Your task to perform on an android device: uninstall "Grab" Image 0: 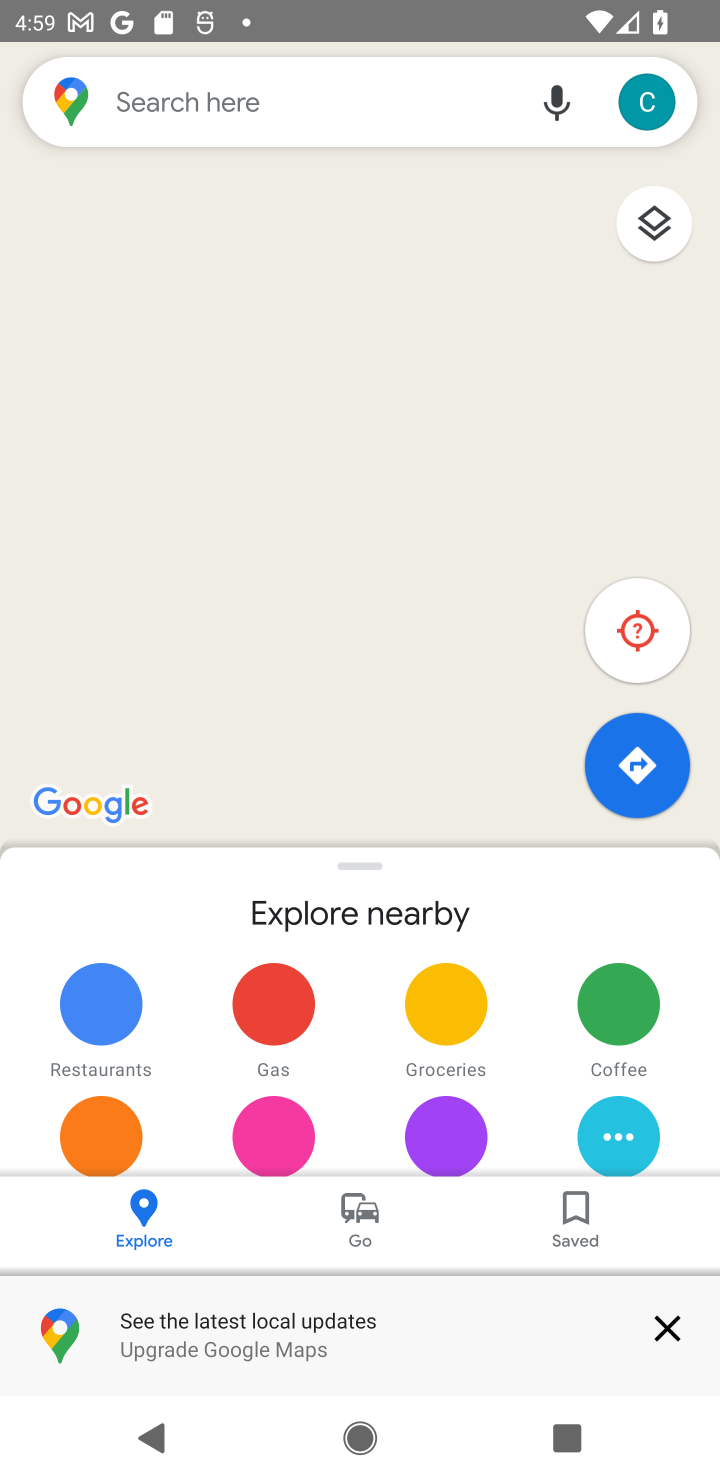
Step 0: press home button
Your task to perform on an android device: uninstall "Grab" Image 1: 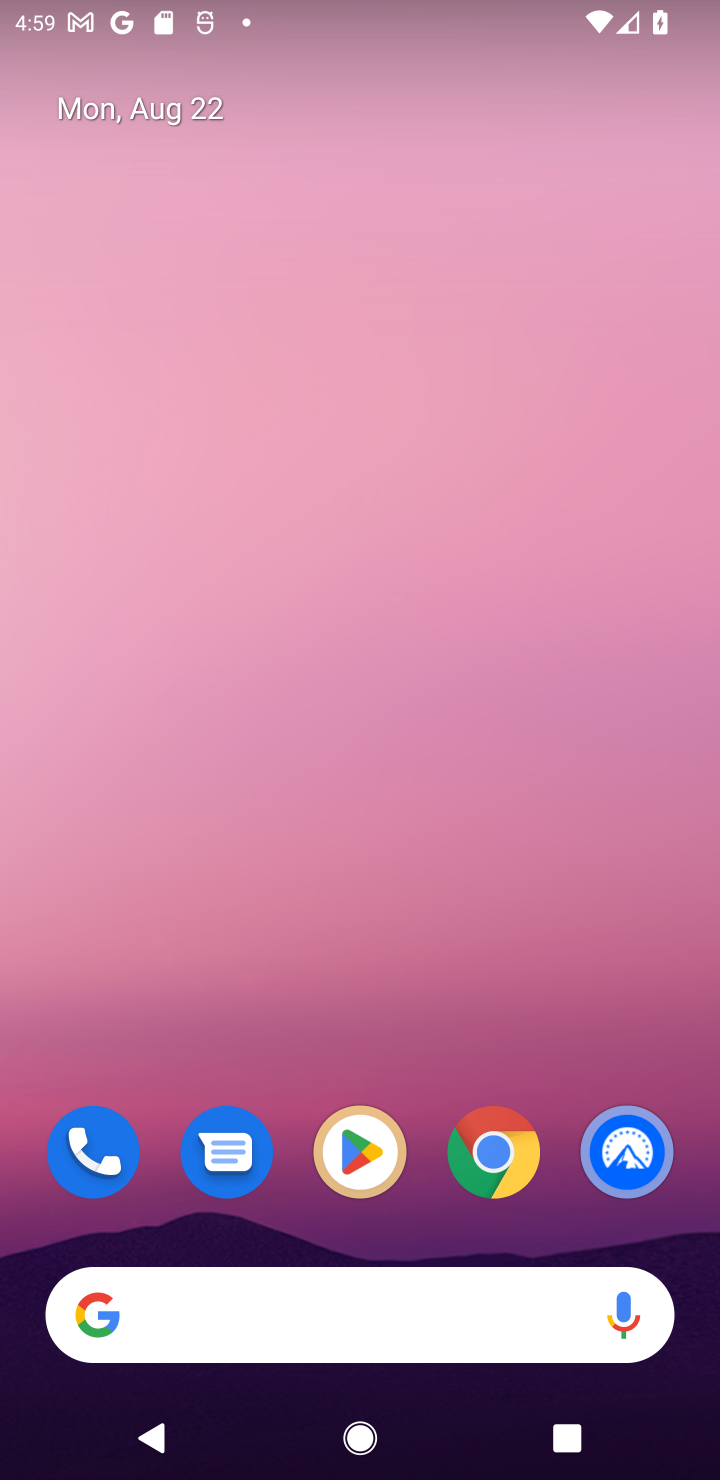
Step 1: click (357, 1182)
Your task to perform on an android device: uninstall "Grab" Image 2: 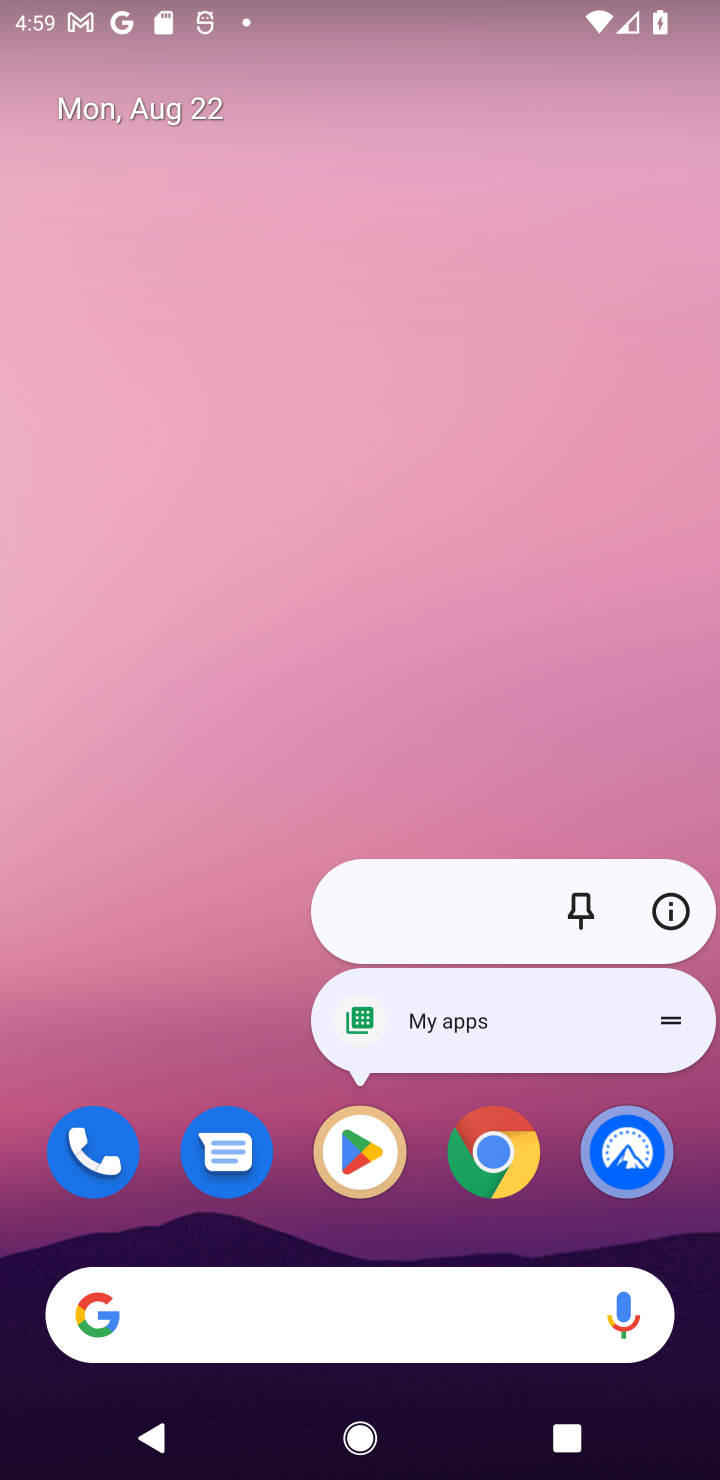
Step 2: click (362, 1153)
Your task to perform on an android device: uninstall "Grab" Image 3: 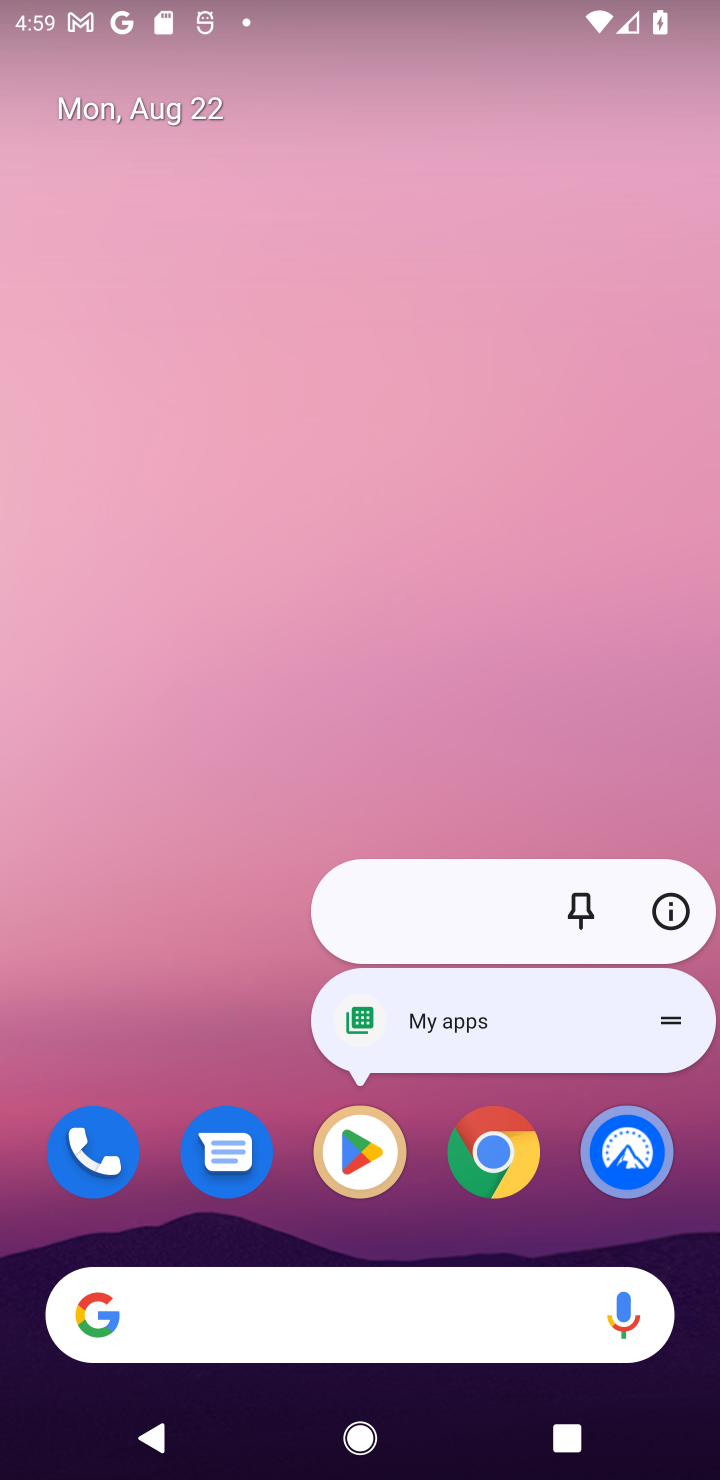
Step 3: click (362, 1153)
Your task to perform on an android device: uninstall "Grab" Image 4: 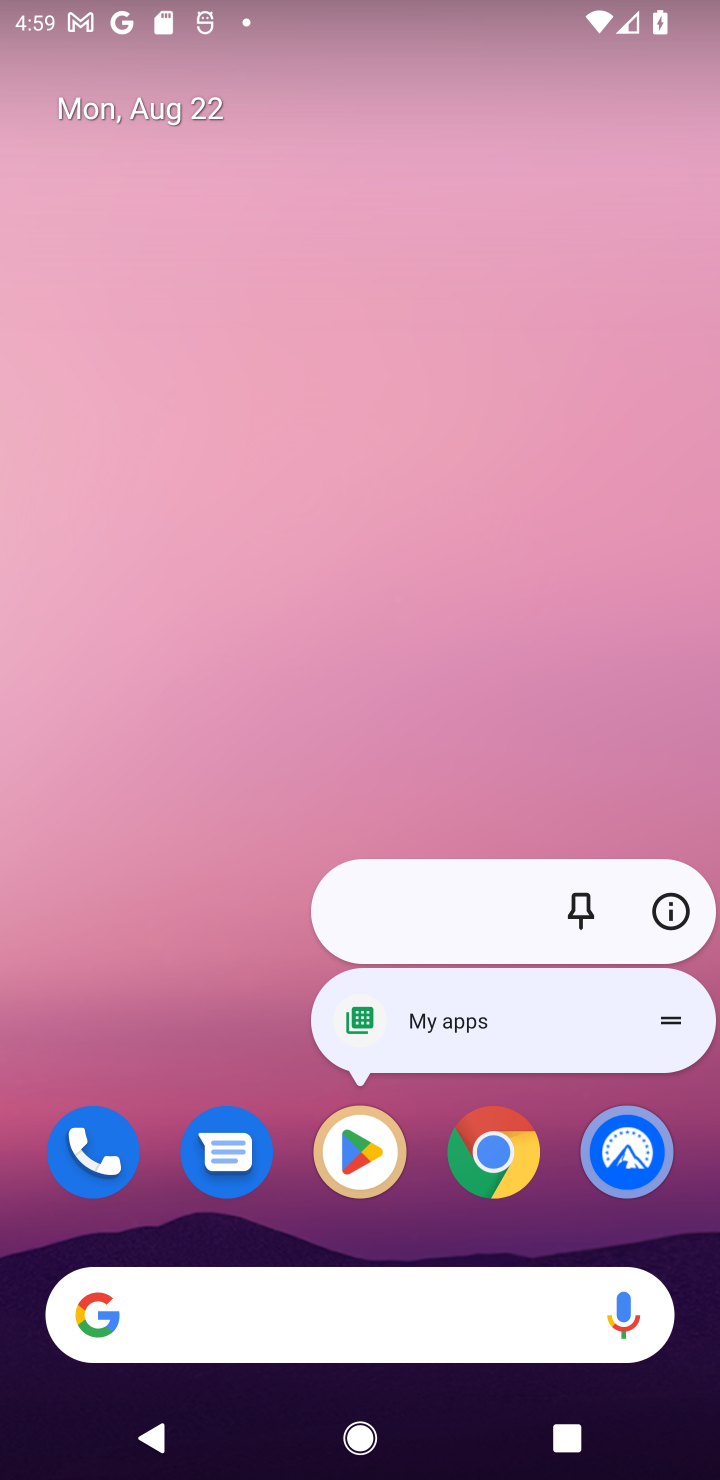
Step 4: click (362, 1153)
Your task to perform on an android device: uninstall "Grab" Image 5: 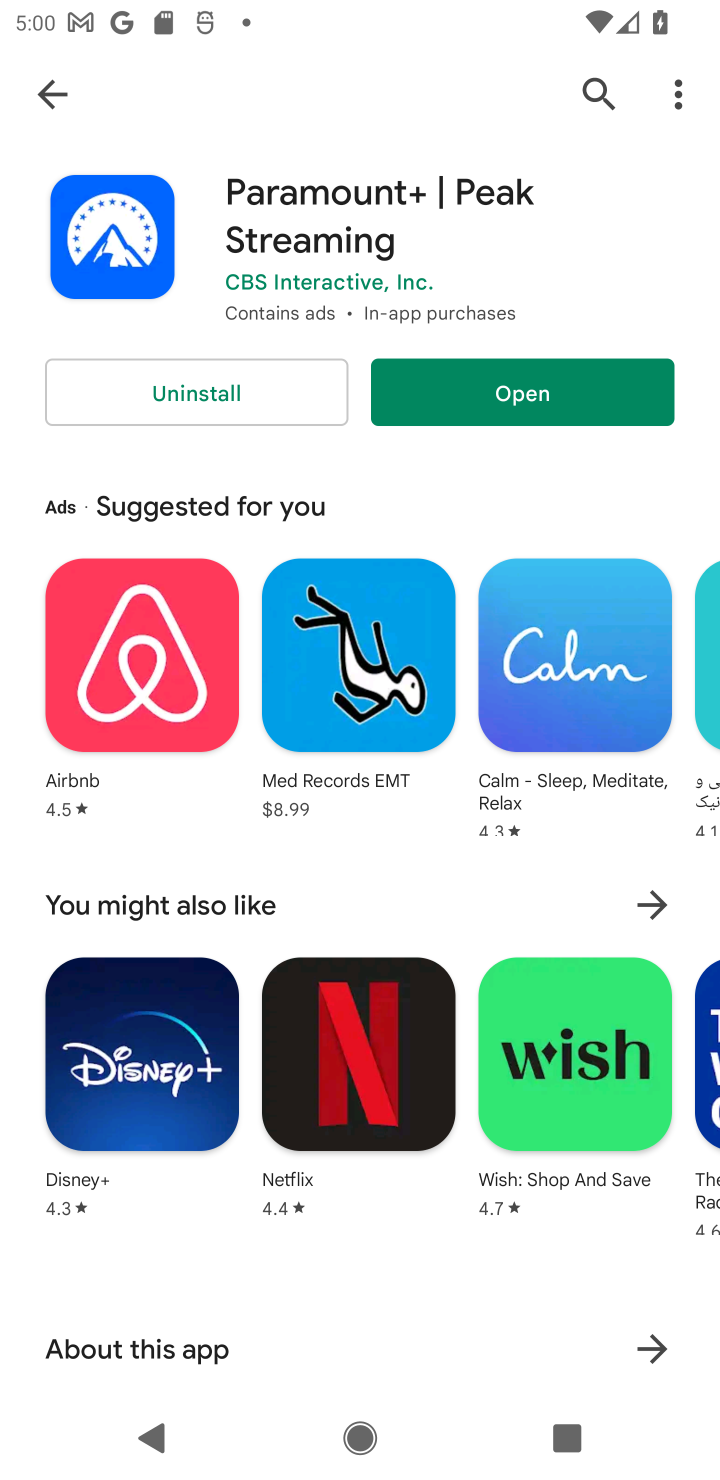
Step 5: click (30, 85)
Your task to perform on an android device: uninstall "Grab" Image 6: 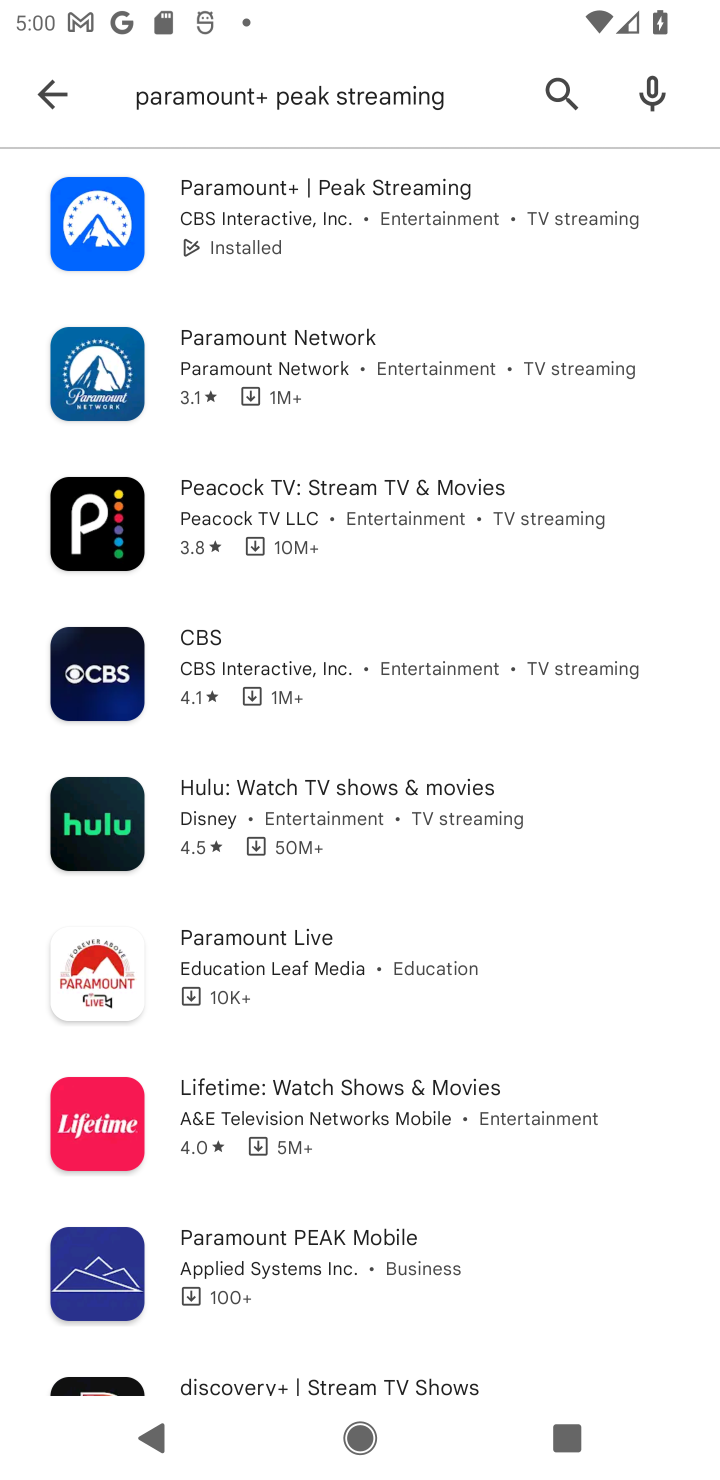
Step 6: click (26, 112)
Your task to perform on an android device: uninstall "Grab" Image 7: 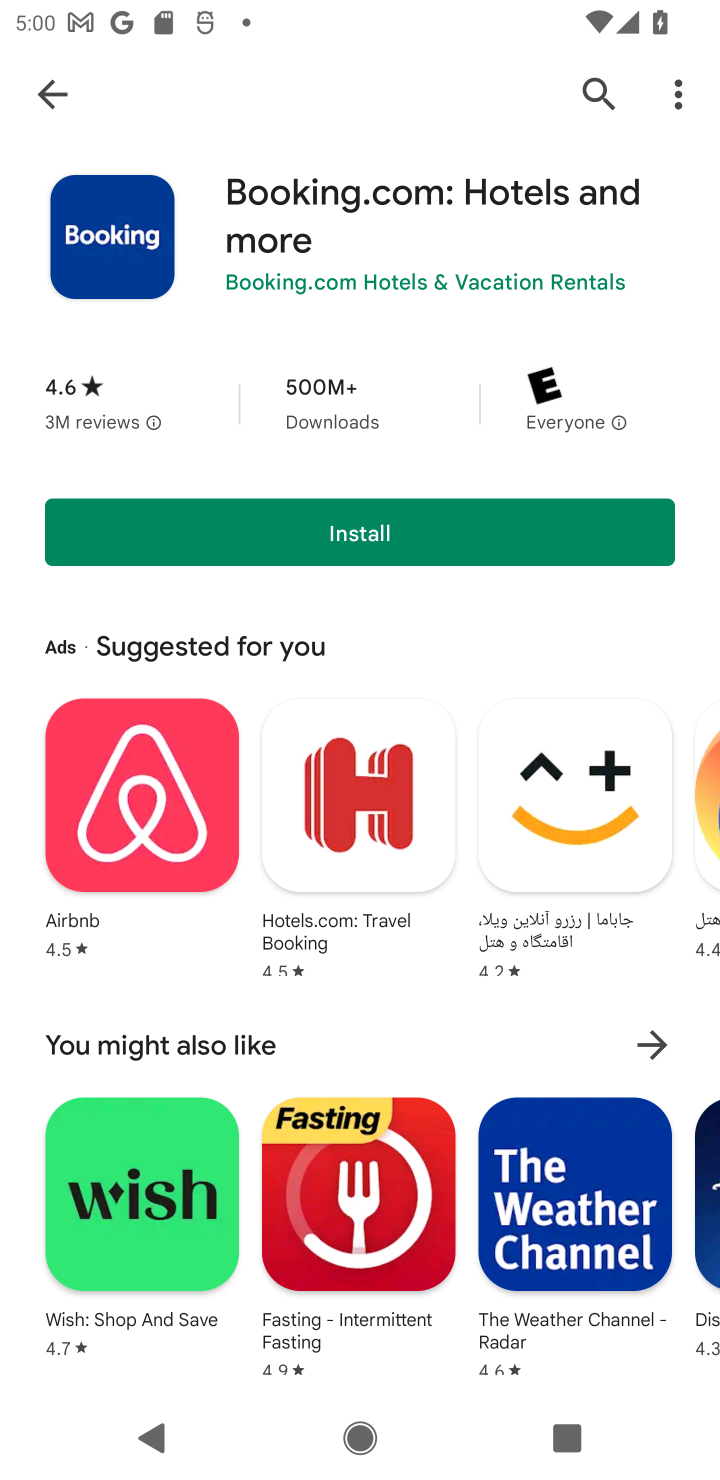
Step 7: click (27, 74)
Your task to perform on an android device: uninstall "Grab" Image 8: 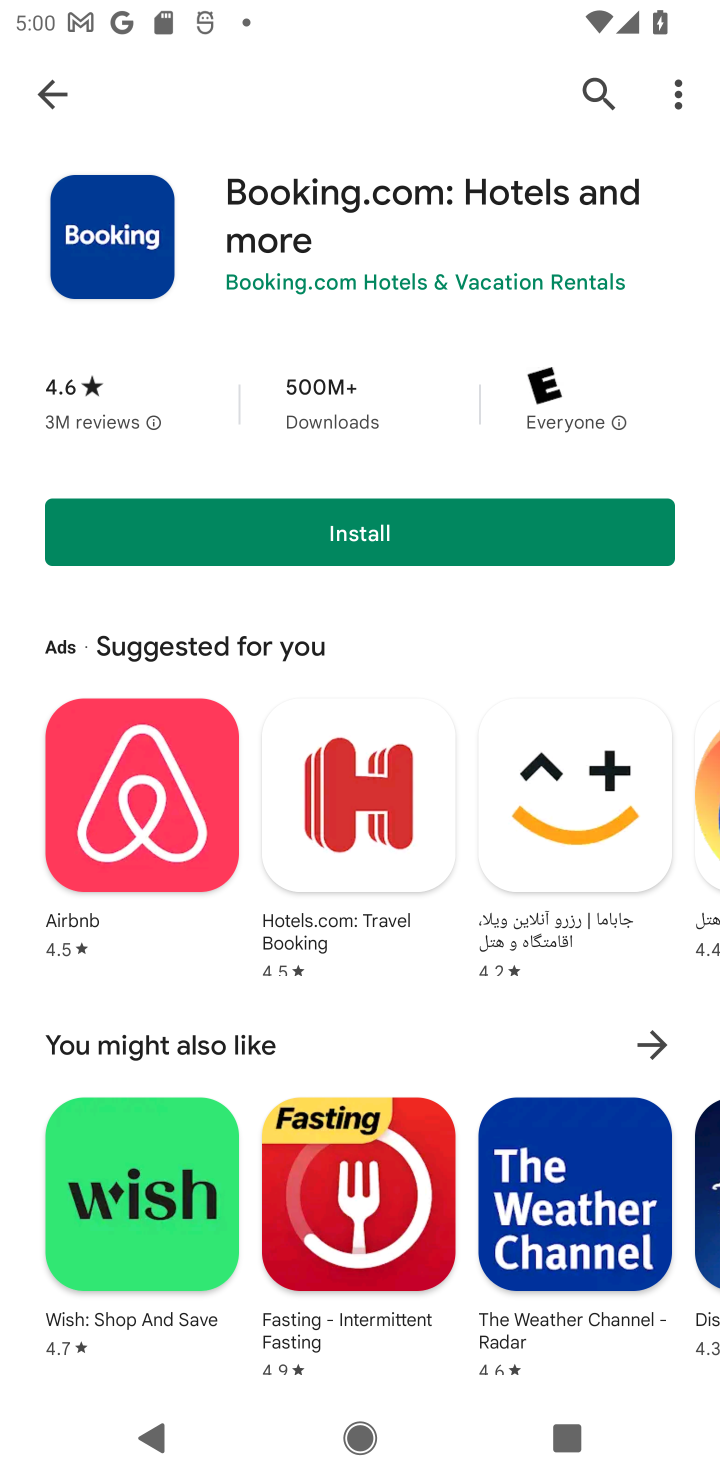
Step 8: click (586, 87)
Your task to perform on an android device: uninstall "Grab" Image 9: 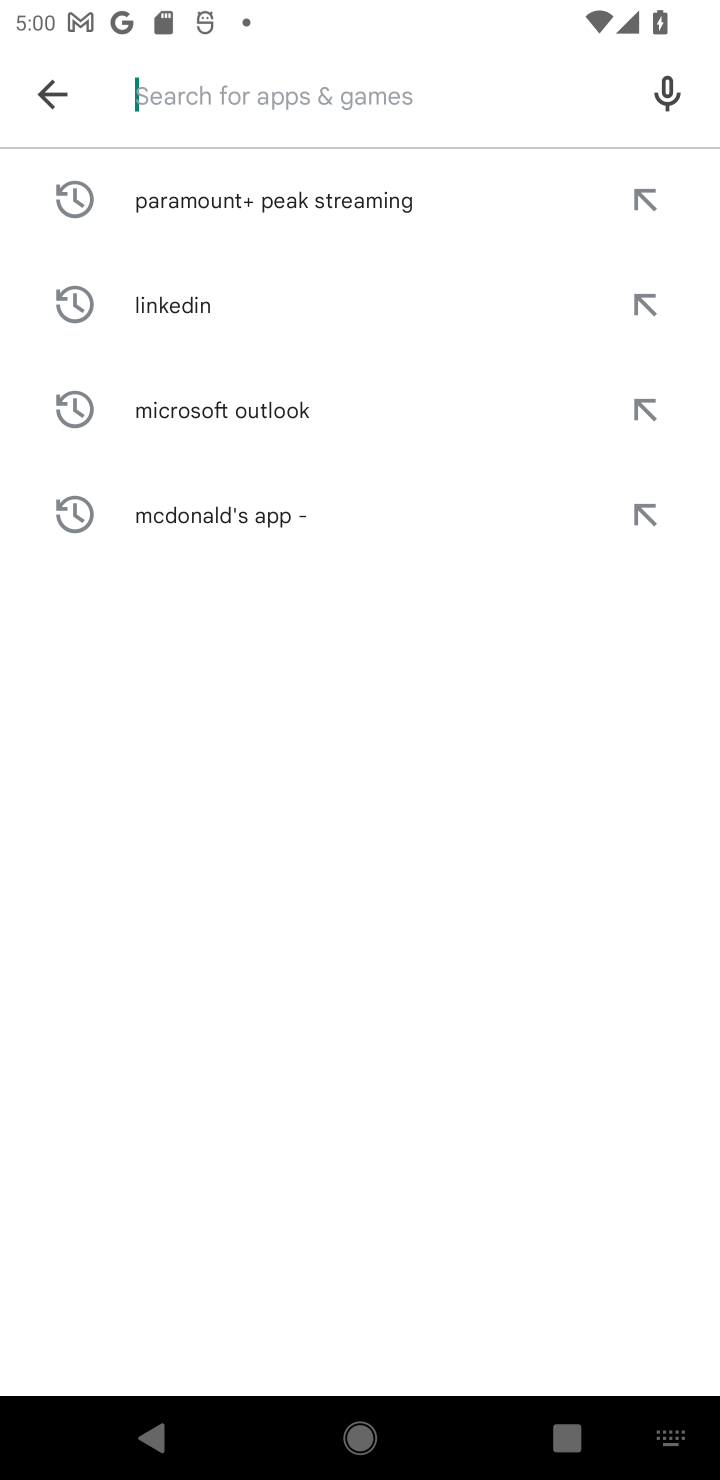
Step 9: type "Grab"
Your task to perform on an android device: uninstall "Grab" Image 10: 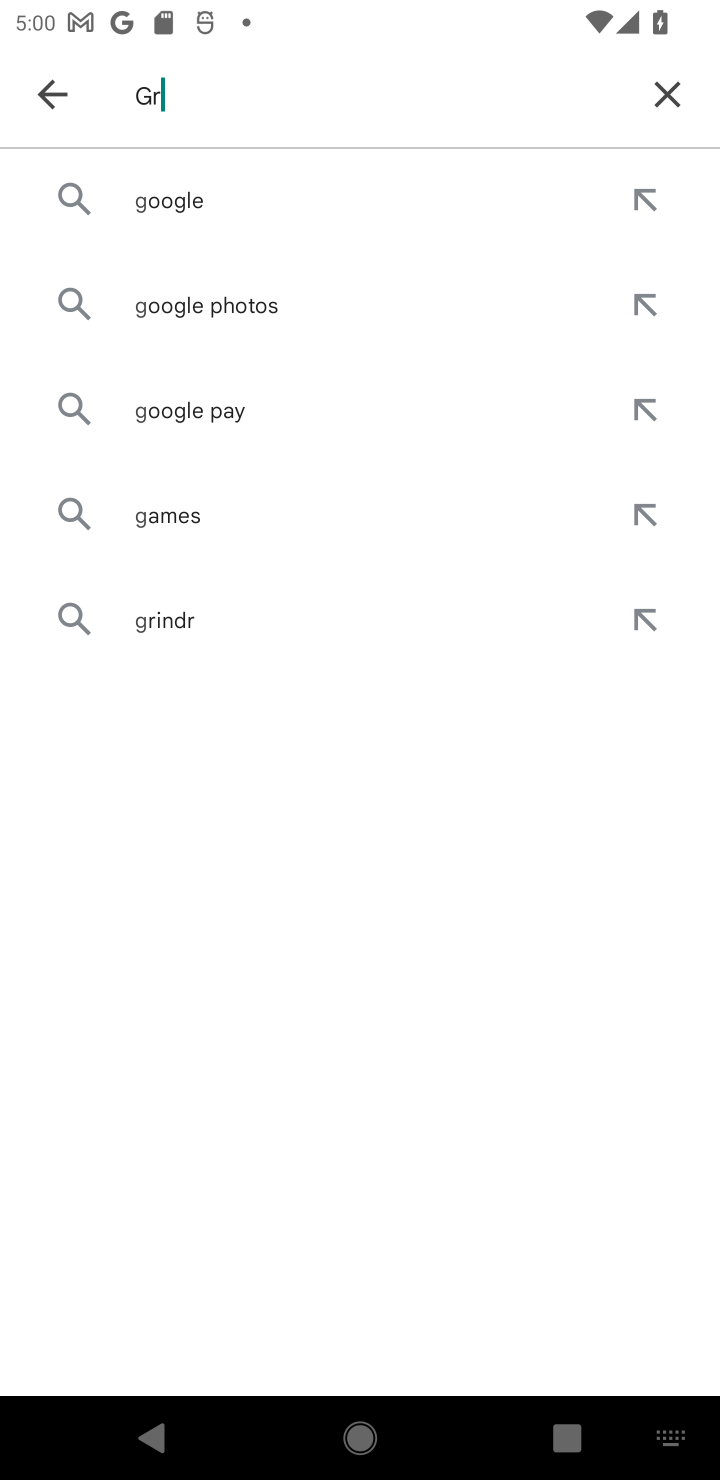
Step 10: type ""
Your task to perform on an android device: uninstall "Grab" Image 11: 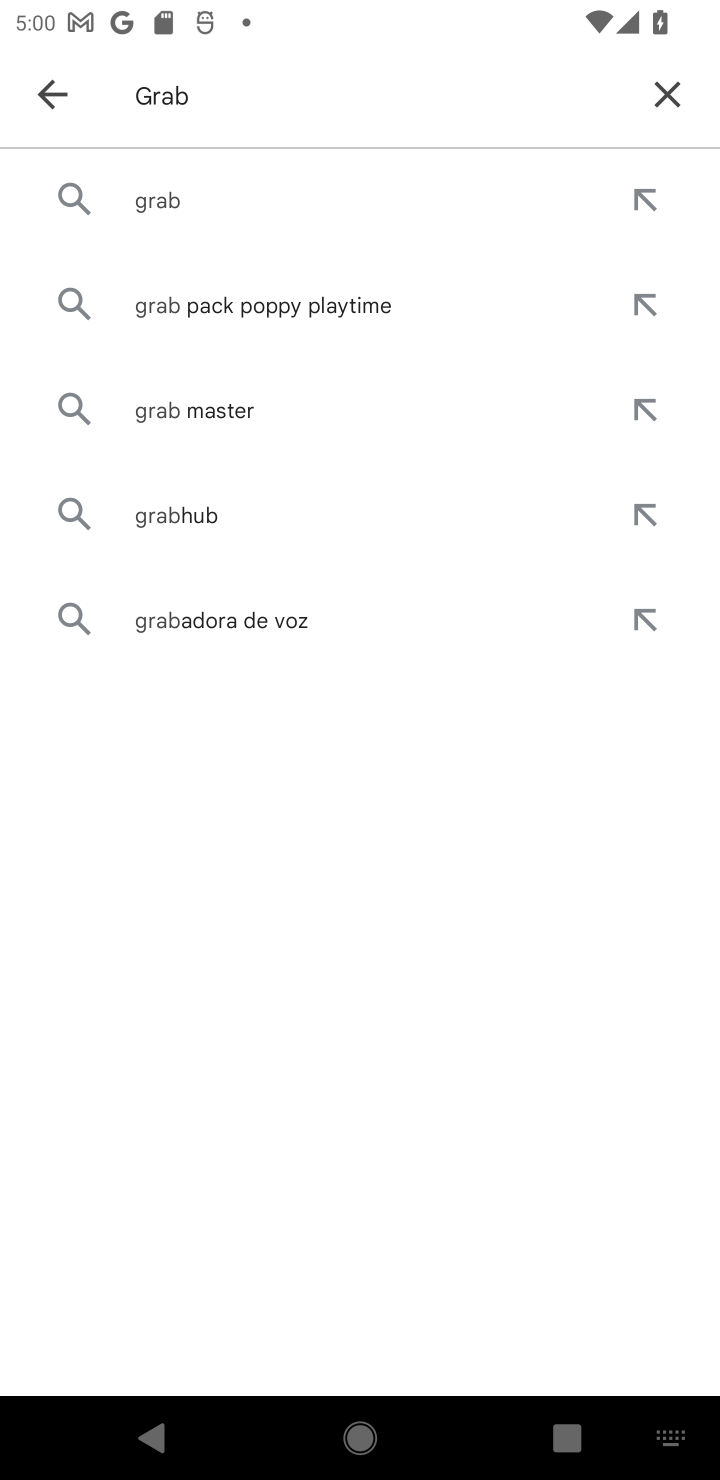
Step 11: click (162, 173)
Your task to perform on an android device: uninstall "Grab" Image 12: 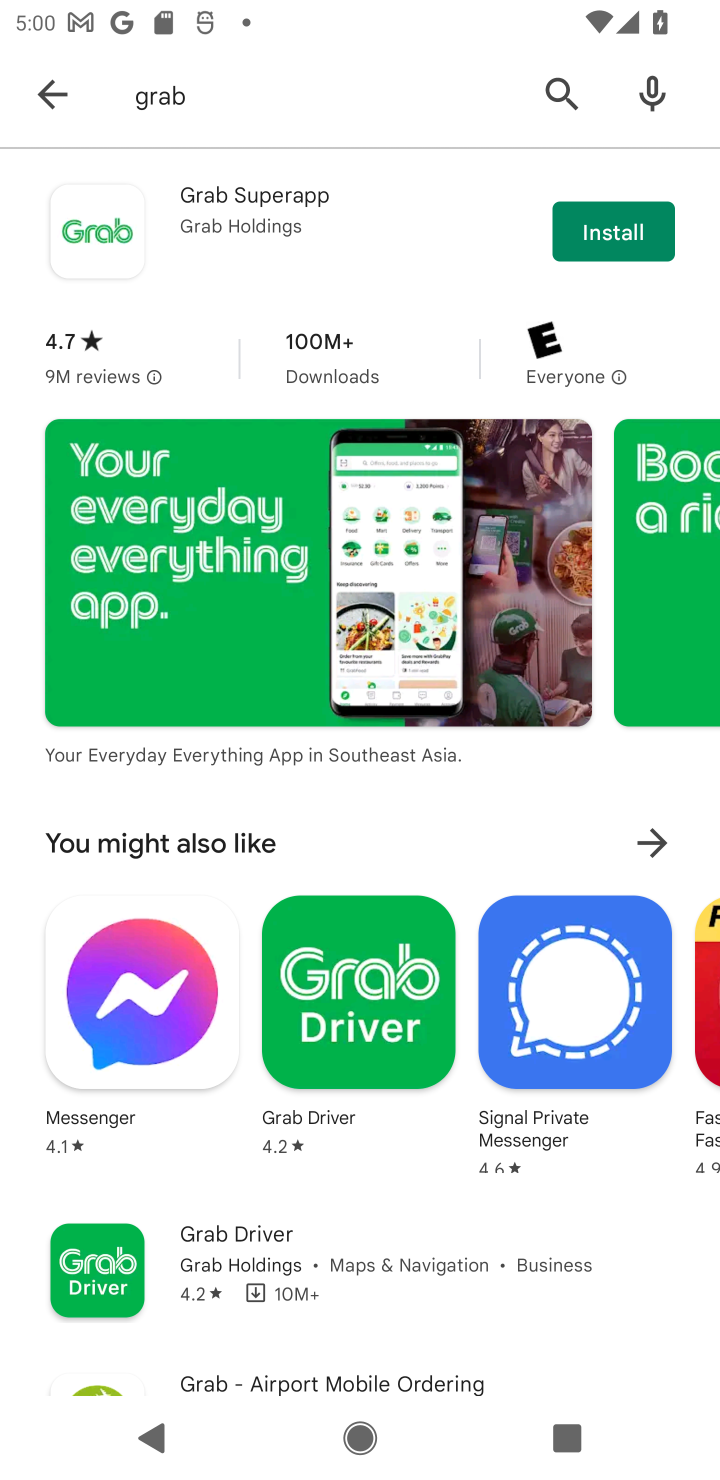
Step 12: task complete